Your task to perform on an android device: manage bookmarks in the chrome app Image 0: 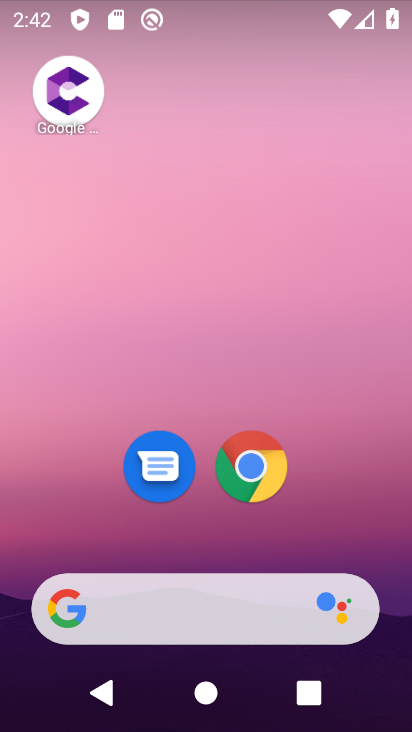
Step 0: click (245, 460)
Your task to perform on an android device: manage bookmarks in the chrome app Image 1: 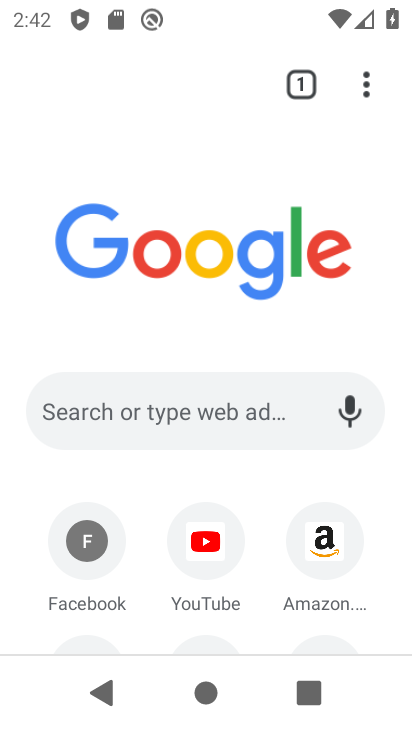
Step 1: click (366, 93)
Your task to perform on an android device: manage bookmarks in the chrome app Image 2: 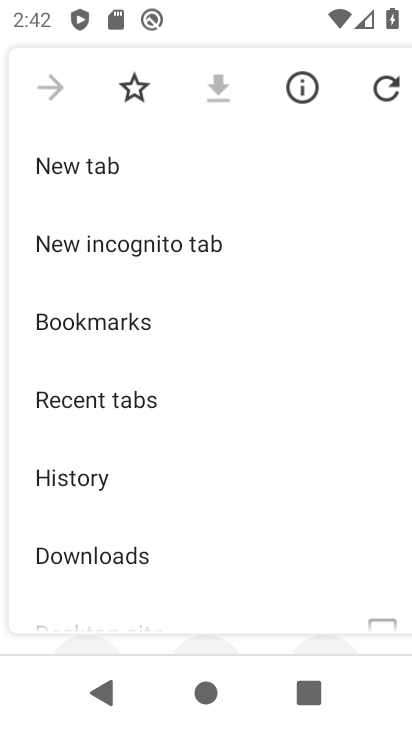
Step 2: drag from (214, 554) to (211, 333)
Your task to perform on an android device: manage bookmarks in the chrome app Image 3: 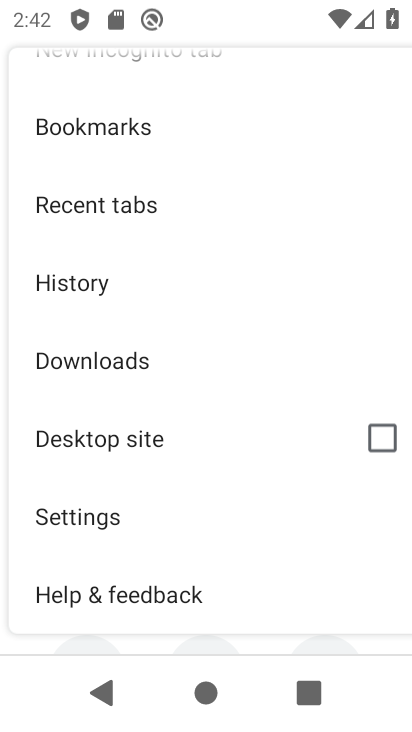
Step 3: click (104, 124)
Your task to perform on an android device: manage bookmarks in the chrome app Image 4: 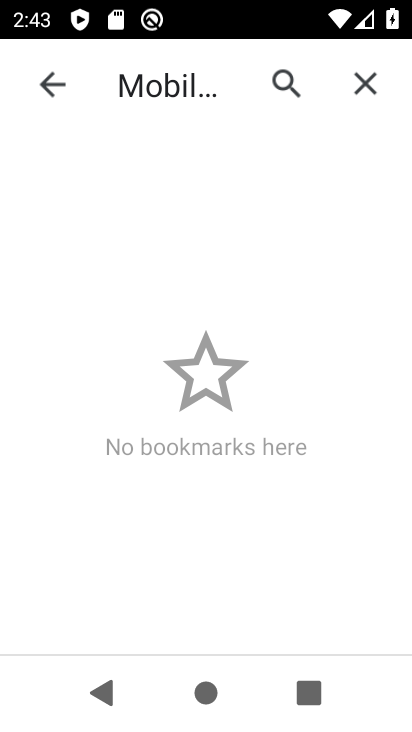
Step 4: task complete